Your task to perform on an android device: Open eBay Image 0: 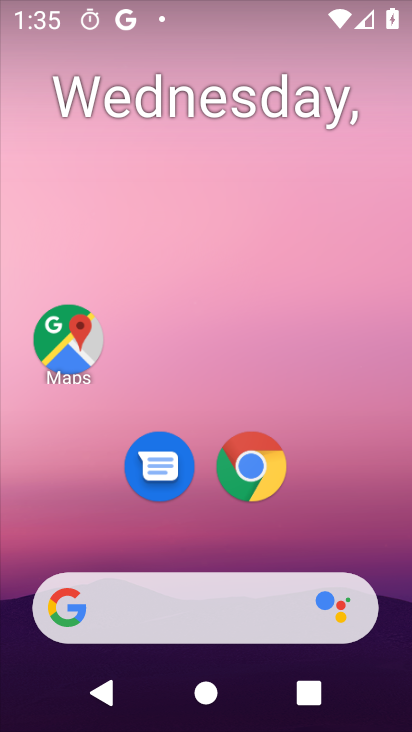
Step 0: click (265, 476)
Your task to perform on an android device: Open eBay Image 1: 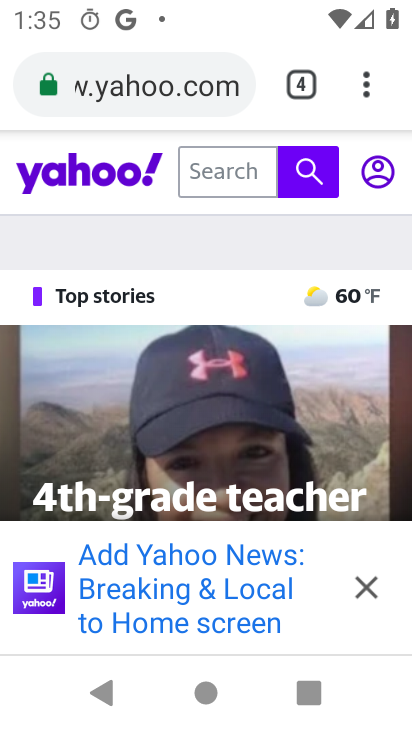
Step 1: click (312, 74)
Your task to perform on an android device: Open eBay Image 2: 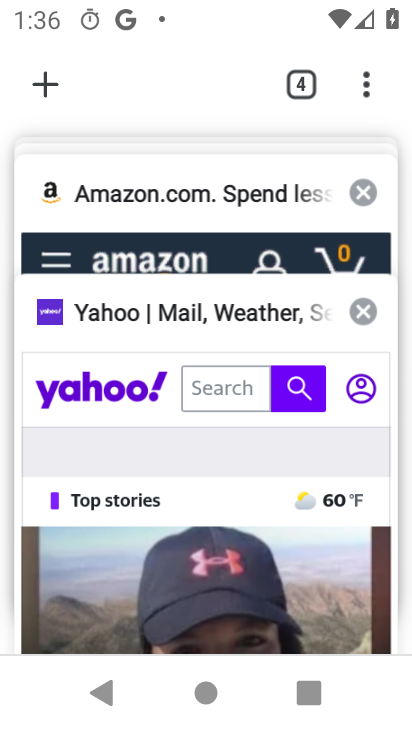
Step 2: drag from (197, 202) to (160, 490)
Your task to perform on an android device: Open eBay Image 3: 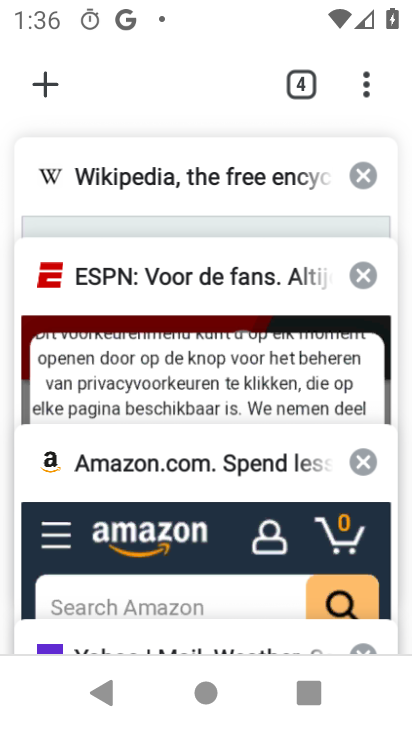
Step 3: drag from (208, 201) to (209, 495)
Your task to perform on an android device: Open eBay Image 4: 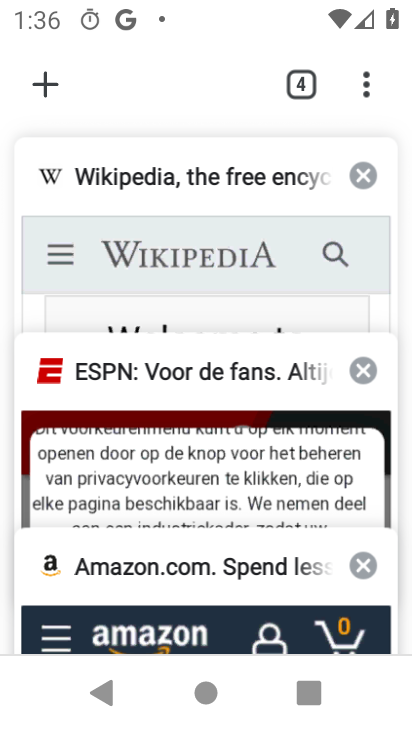
Step 4: click (40, 63)
Your task to perform on an android device: Open eBay Image 5: 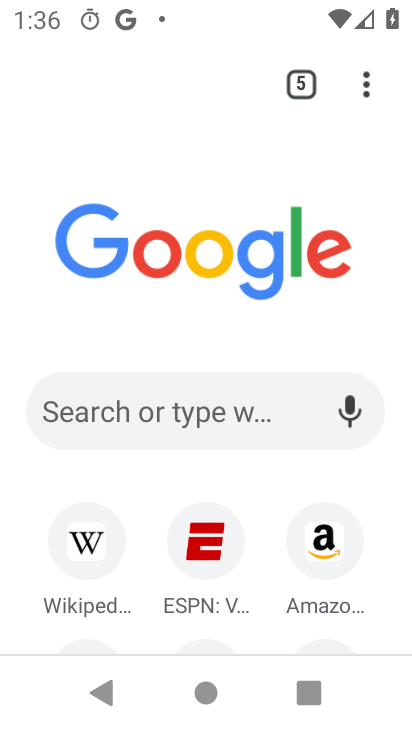
Step 5: drag from (255, 520) to (335, 136)
Your task to perform on an android device: Open eBay Image 6: 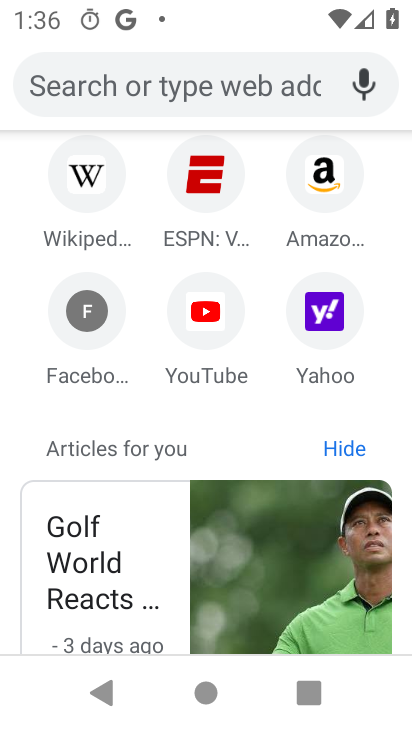
Step 6: click (194, 67)
Your task to perform on an android device: Open eBay Image 7: 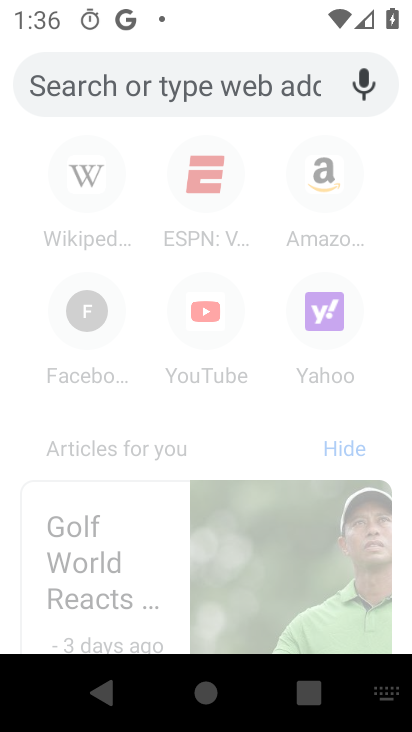
Step 7: type "ebay.com"
Your task to perform on an android device: Open eBay Image 8: 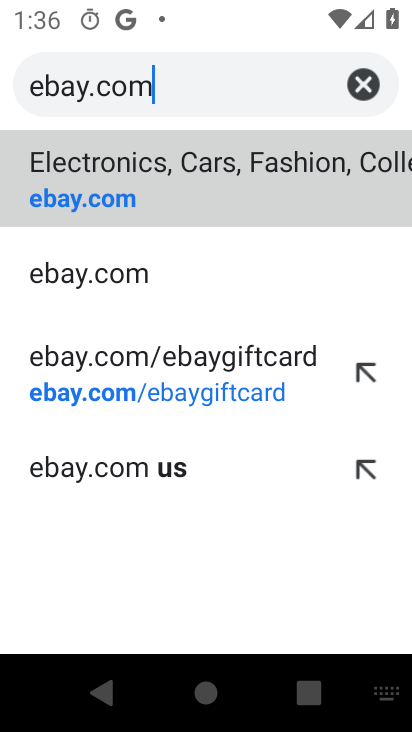
Step 8: click (198, 141)
Your task to perform on an android device: Open eBay Image 9: 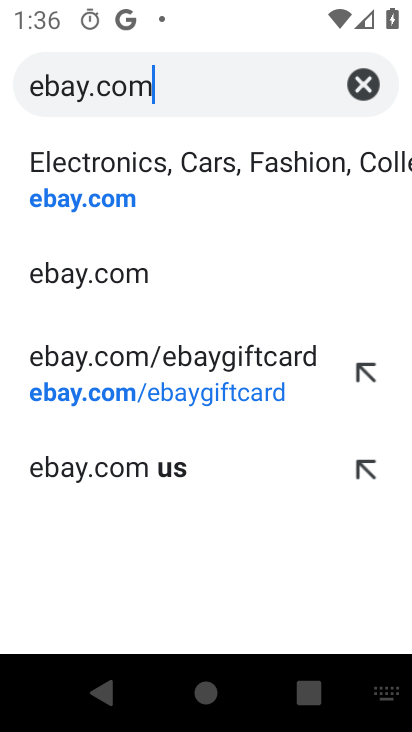
Step 9: click (145, 183)
Your task to perform on an android device: Open eBay Image 10: 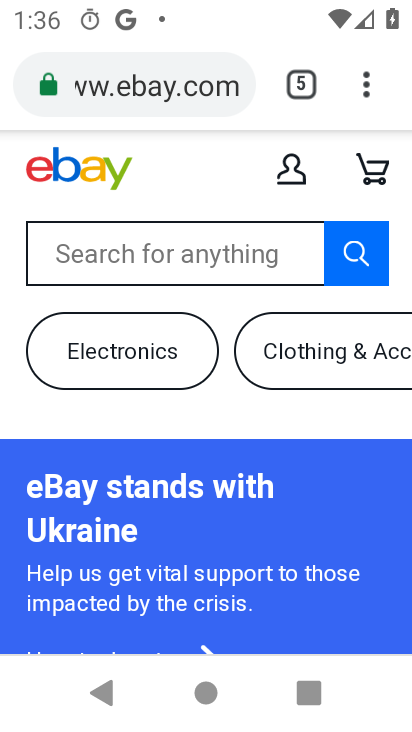
Step 10: task complete